Your task to perform on an android device: see creations saved in the google photos Image 0: 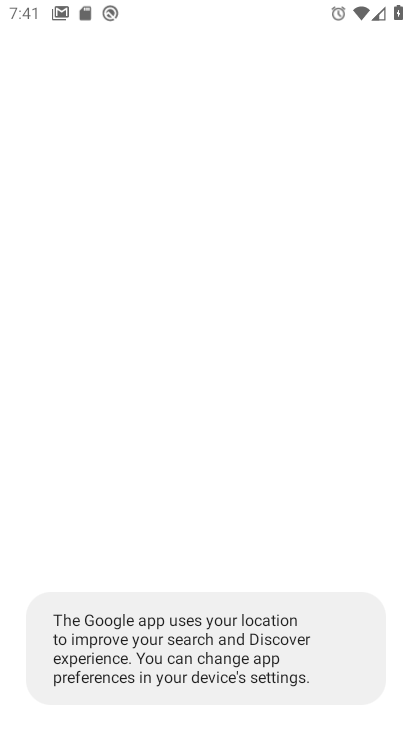
Step 0: drag from (206, 643) to (385, 52)
Your task to perform on an android device: see creations saved in the google photos Image 1: 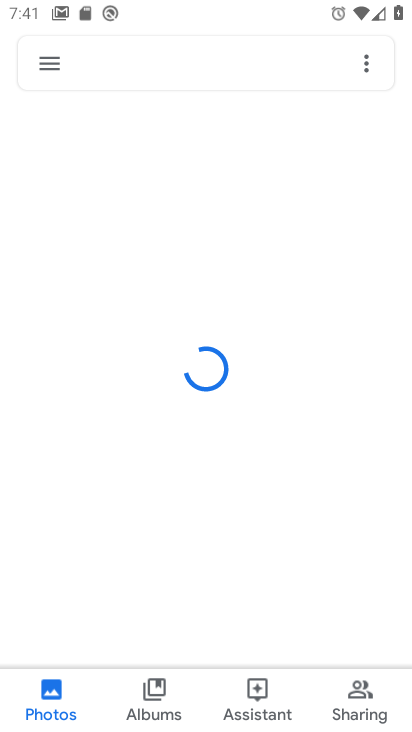
Step 1: press home button
Your task to perform on an android device: see creations saved in the google photos Image 2: 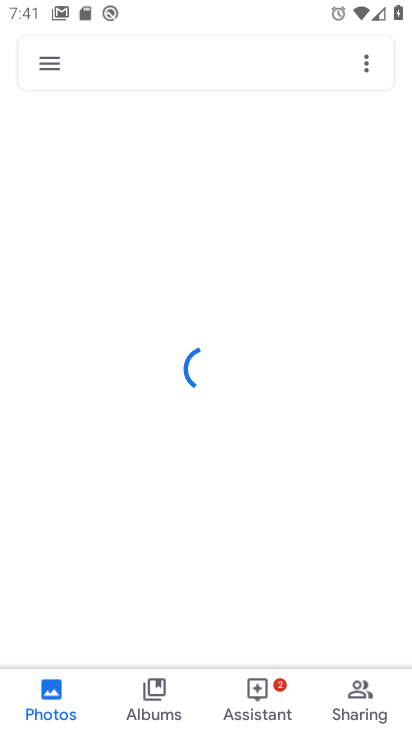
Step 2: drag from (385, 52) to (402, 599)
Your task to perform on an android device: see creations saved in the google photos Image 3: 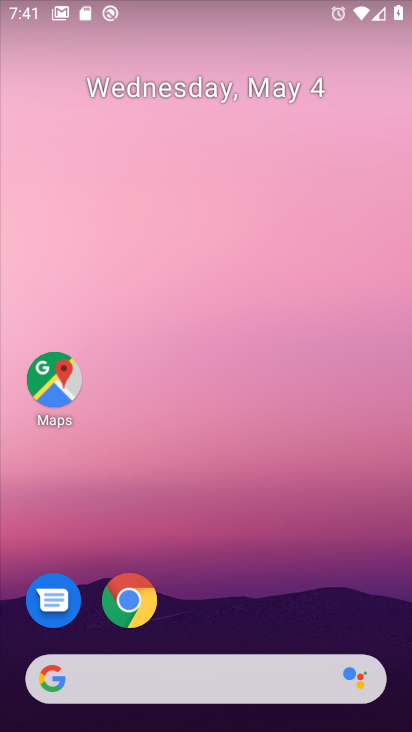
Step 3: drag from (209, 531) to (388, 101)
Your task to perform on an android device: see creations saved in the google photos Image 4: 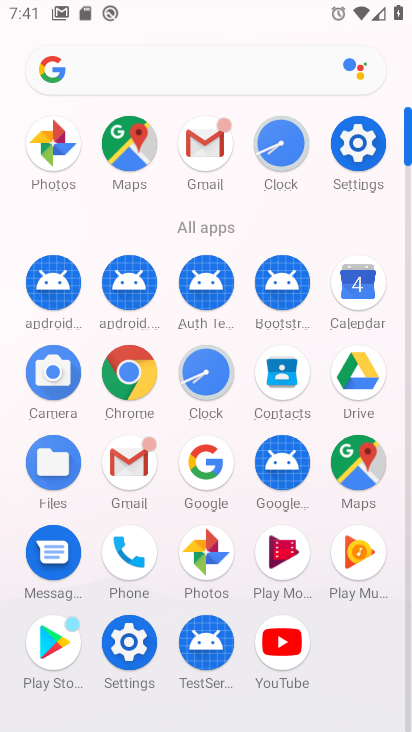
Step 4: click (52, 142)
Your task to perform on an android device: see creations saved in the google photos Image 5: 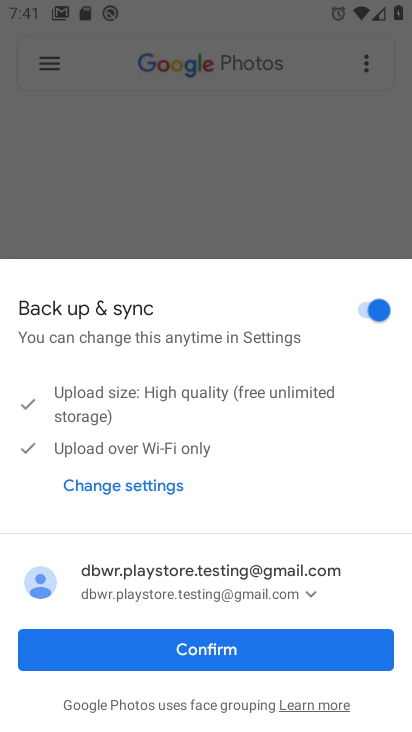
Step 5: click (199, 639)
Your task to perform on an android device: see creations saved in the google photos Image 6: 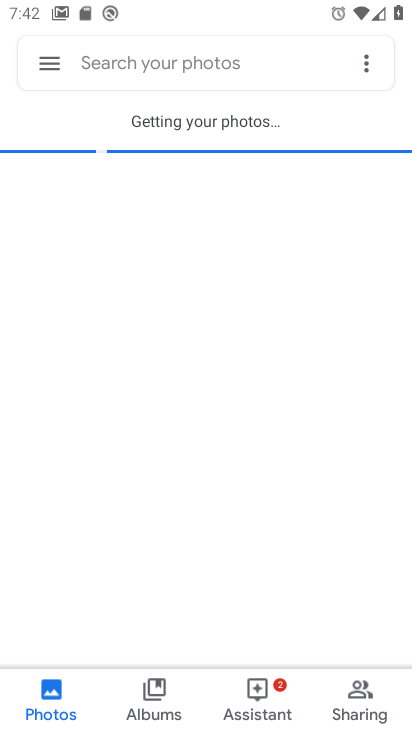
Step 6: click (46, 64)
Your task to perform on an android device: see creations saved in the google photos Image 7: 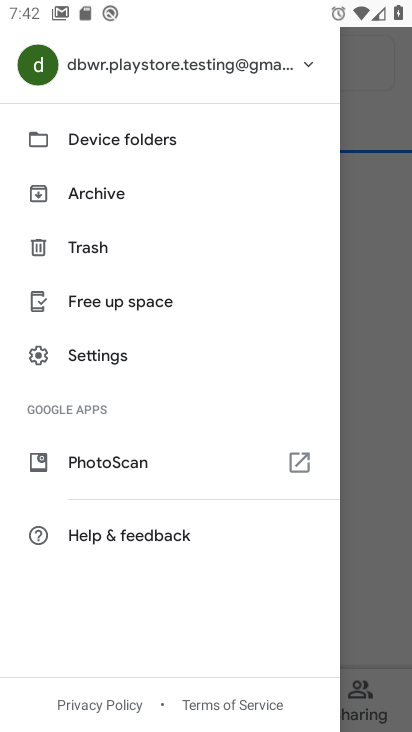
Step 7: click (370, 233)
Your task to perform on an android device: see creations saved in the google photos Image 8: 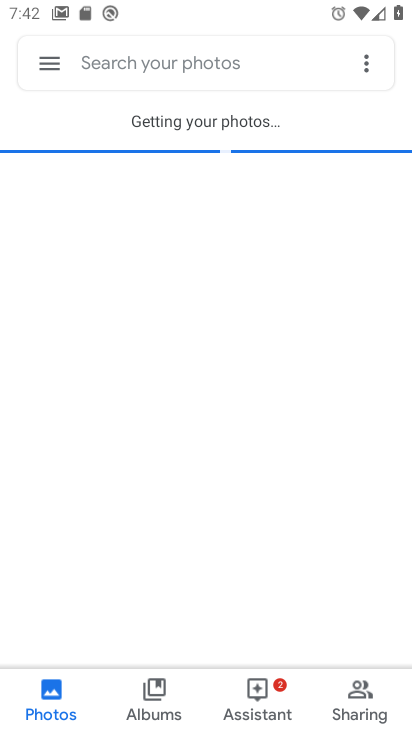
Step 8: click (162, 682)
Your task to perform on an android device: see creations saved in the google photos Image 9: 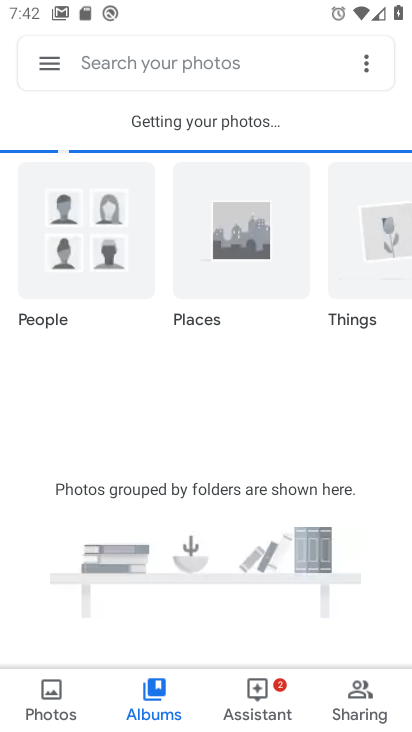
Step 9: task complete